Your task to perform on an android device: toggle sleep mode Image 0: 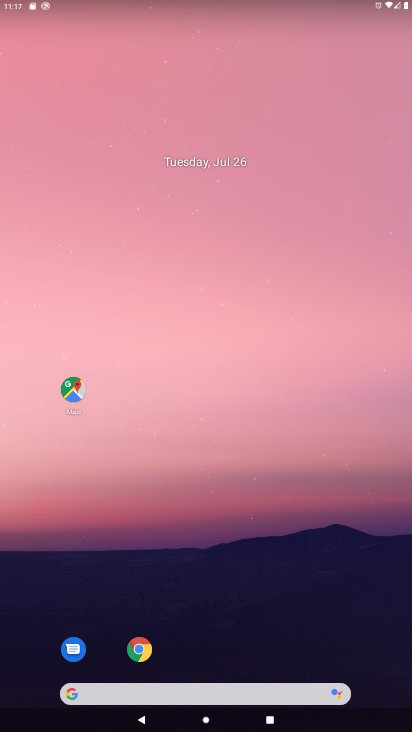
Step 0: drag from (223, 655) to (254, 43)
Your task to perform on an android device: toggle sleep mode Image 1: 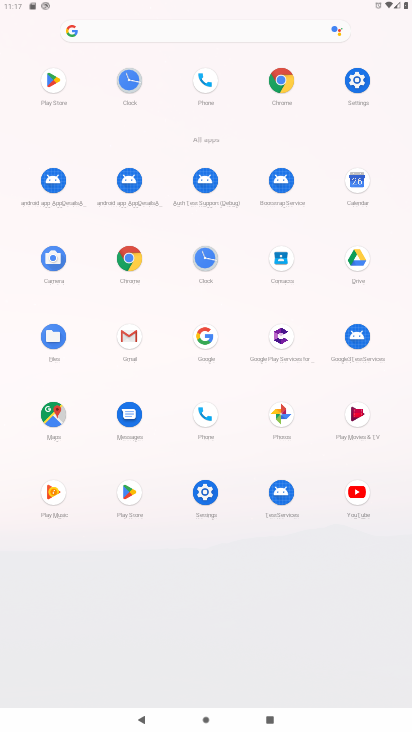
Step 1: click (203, 499)
Your task to perform on an android device: toggle sleep mode Image 2: 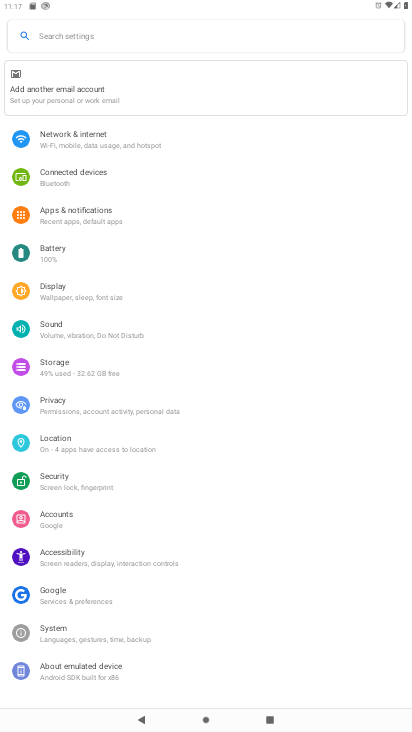
Step 2: click (176, 32)
Your task to perform on an android device: toggle sleep mode Image 3: 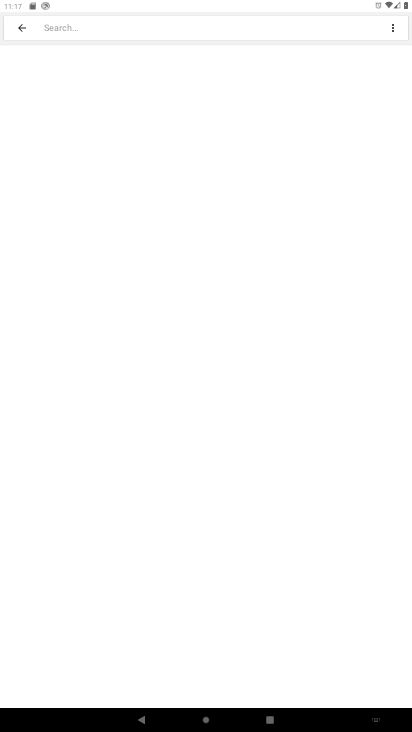
Step 3: type "sleep mode"
Your task to perform on an android device: toggle sleep mode Image 4: 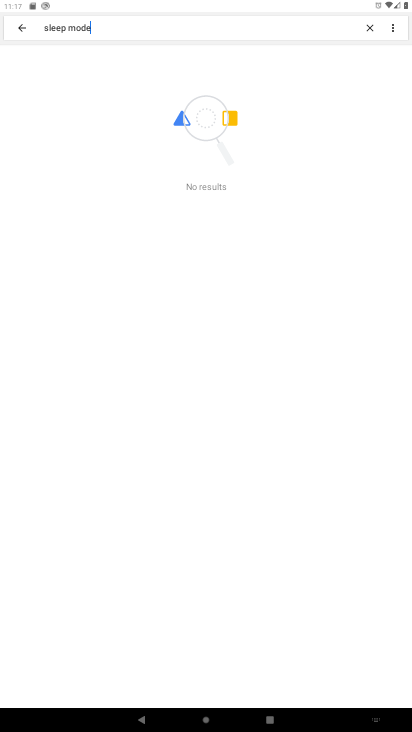
Step 4: task complete